Your task to perform on an android device: toggle notification dots Image 0: 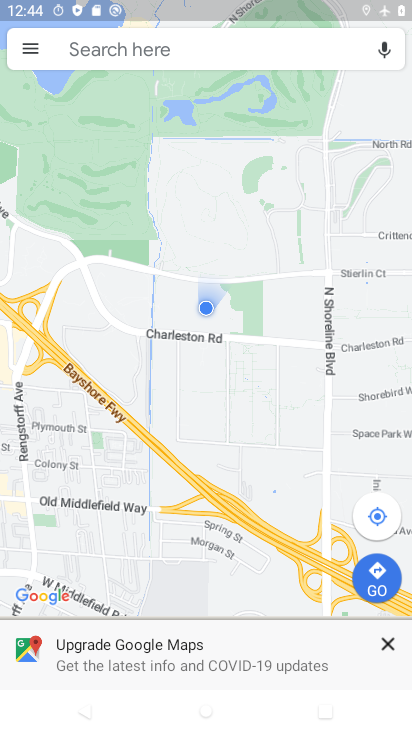
Step 0: press home button
Your task to perform on an android device: toggle notification dots Image 1: 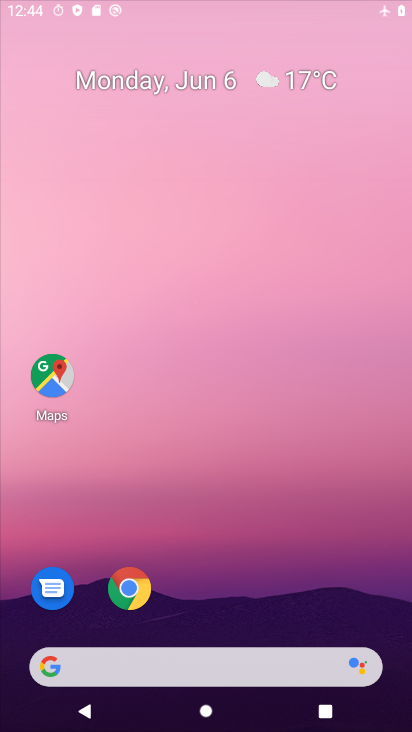
Step 1: drag from (301, 527) to (326, 132)
Your task to perform on an android device: toggle notification dots Image 2: 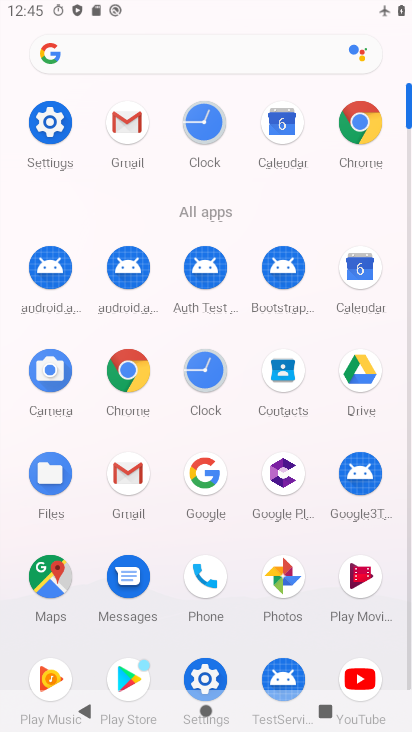
Step 2: click (52, 125)
Your task to perform on an android device: toggle notification dots Image 3: 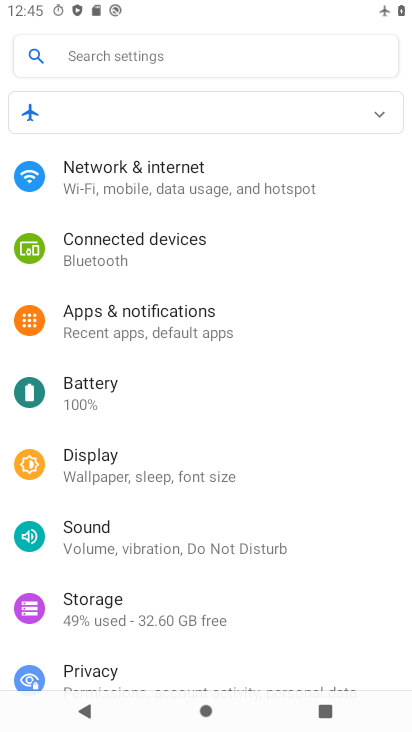
Step 3: click (192, 333)
Your task to perform on an android device: toggle notification dots Image 4: 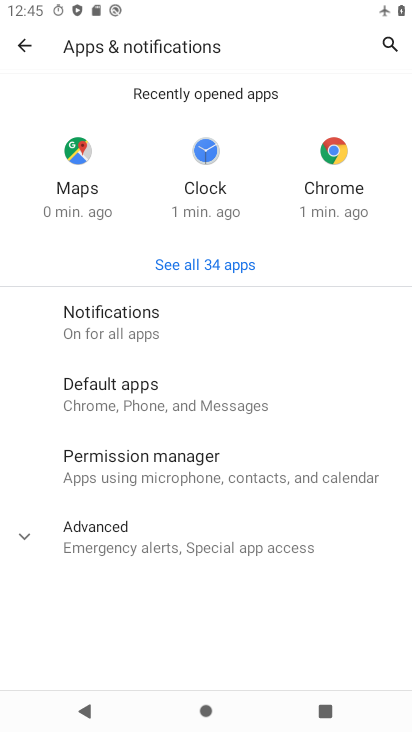
Step 4: click (169, 330)
Your task to perform on an android device: toggle notification dots Image 5: 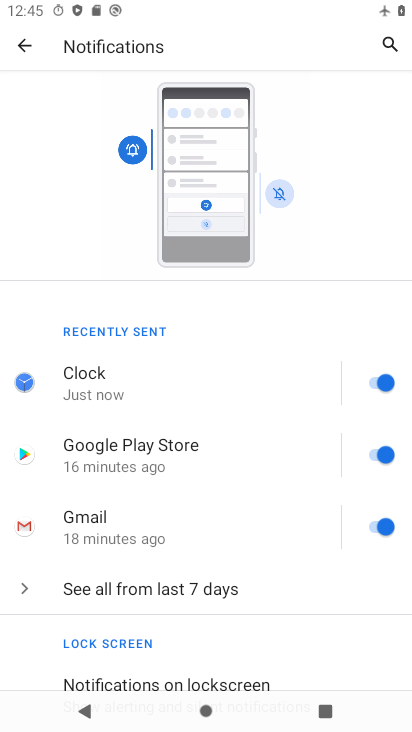
Step 5: drag from (253, 234) to (263, 126)
Your task to perform on an android device: toggle notification dots Image 6: 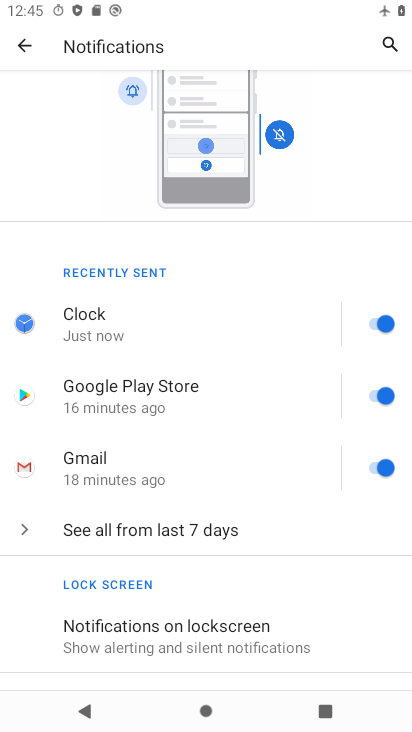
Step 6: drag from (200, 562) to (253, 105)
Your task to perform on an android device: toggle notification dots Image 7: 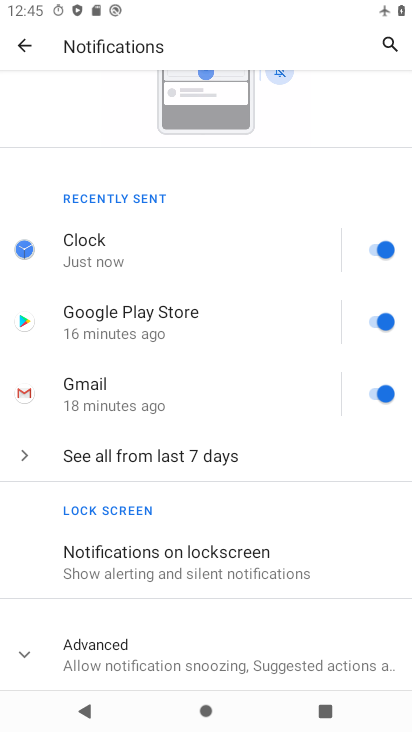
Step 7: click (152, 650)
Your task to perform on an android device: toggle notification dots Image 8: 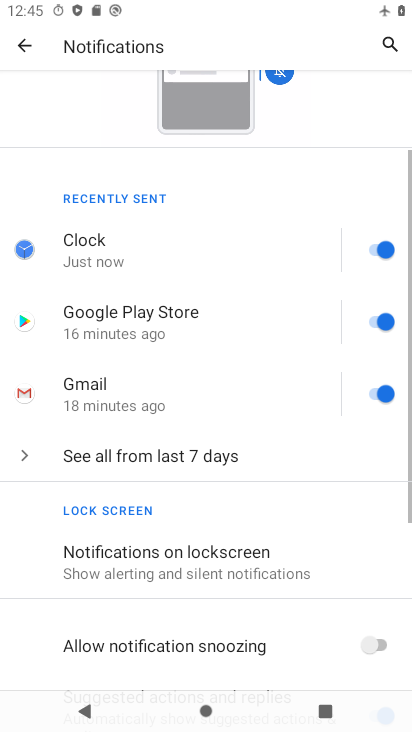
Step 8: drag from (157, 609) to (223, 244)
Your task to perform on an android device: toggle notification dots Image 9: 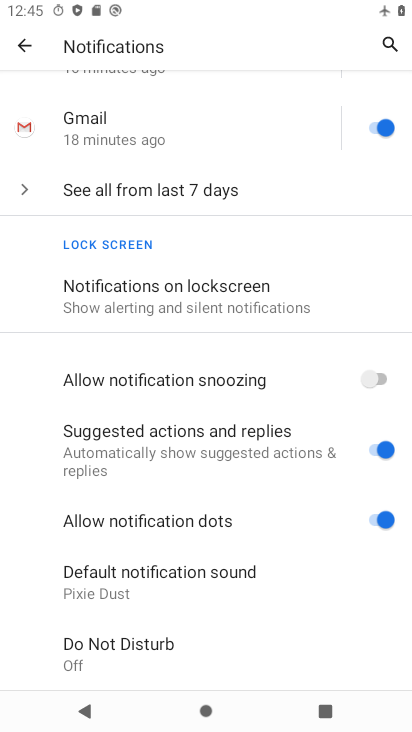
Step 9: click (380, 522)
Your task to perform on an android device: toggle notification dots Image 10: 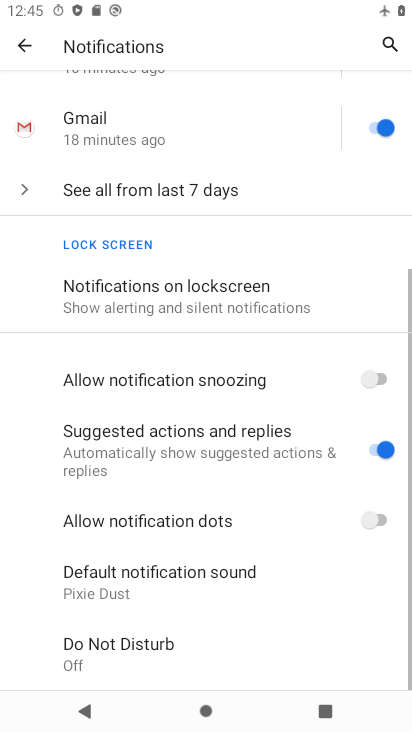
Step 10: task complete